Your task to perform on an android device: open app "PUBG MOBILE" Image 0: 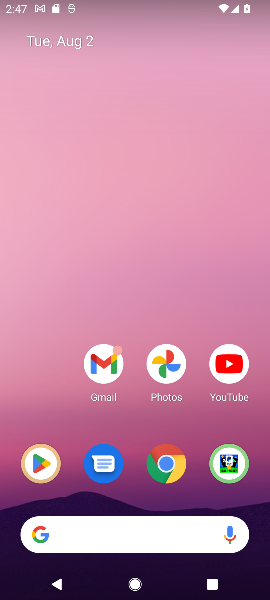
Step 0: press home button
Your task to perform on an android device: open app "PUBG MOBILE" Image 1: 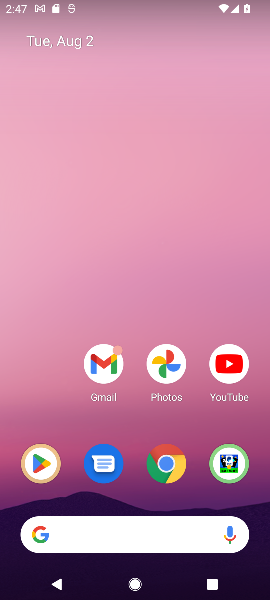
Step 1: click (50, 458)
Your task to perform on an android device: open app "PUBG MOBILE" Image 2: 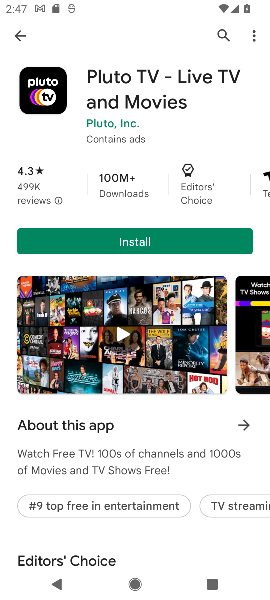
Step 2: click (225, 27)
Your task to perform on an android device: open app "PUBG MOBILE" Image 3: 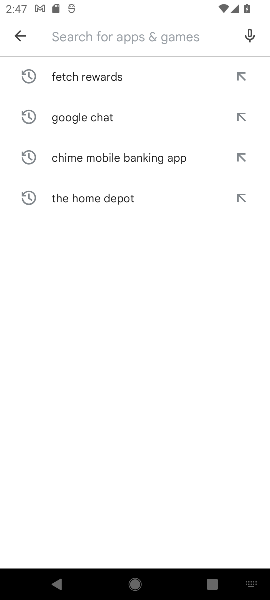
Step 3: type "PUBG MOBILE"
Your task to perform on an android device: open app "PUBG MOBILE" Image 4: 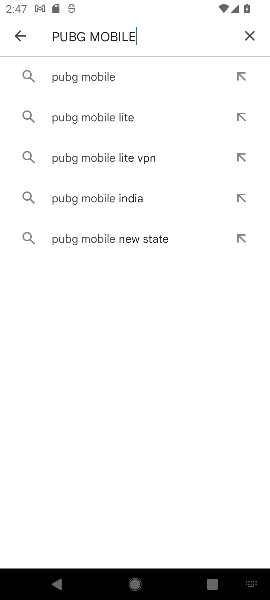
Step 4: click (89, 75)
Your task to perform on an android device: open app "PUBG MOBILE" Image 5: 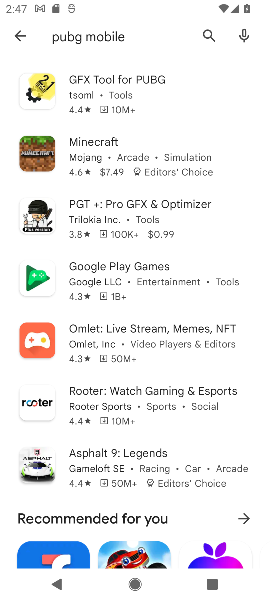
Step 5: task complete